Your task to perform on an android device: change the clock display to analog Image 0: 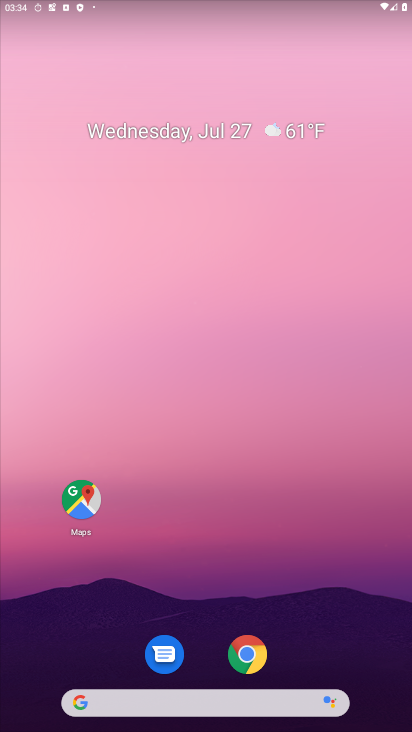
Step 0: drag from (280, 682) to (240, 128)
Your task to perform on an android device: change the clock display to analog Image 1: 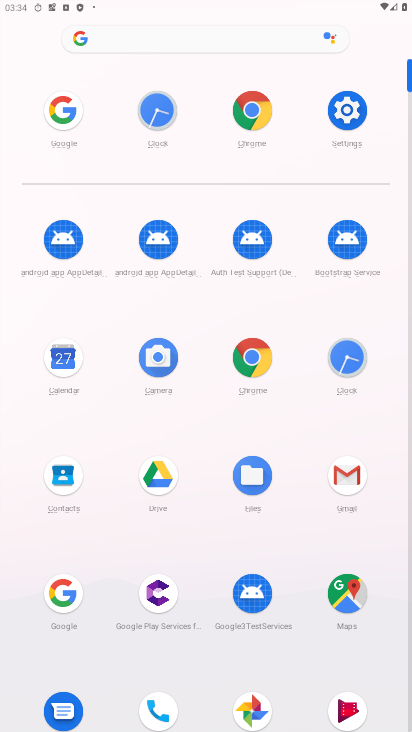
Step 1: click (355, 366)
Your task to perform on an android device: change the clock display to analog Image 2: 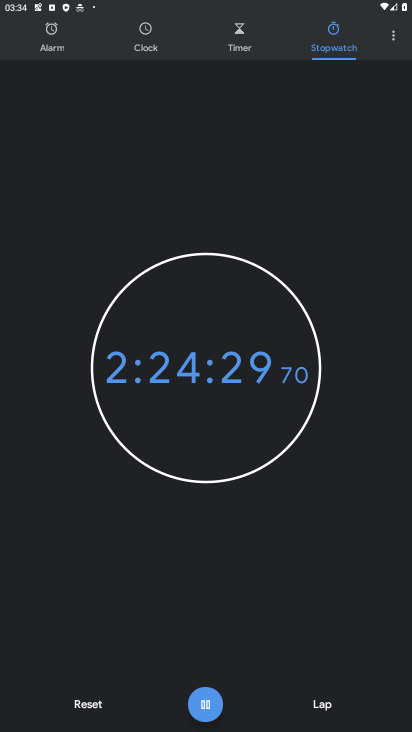
Step 2: click (392, 36)
Your task to perform on an android device: change the clock display to analog Image 3: 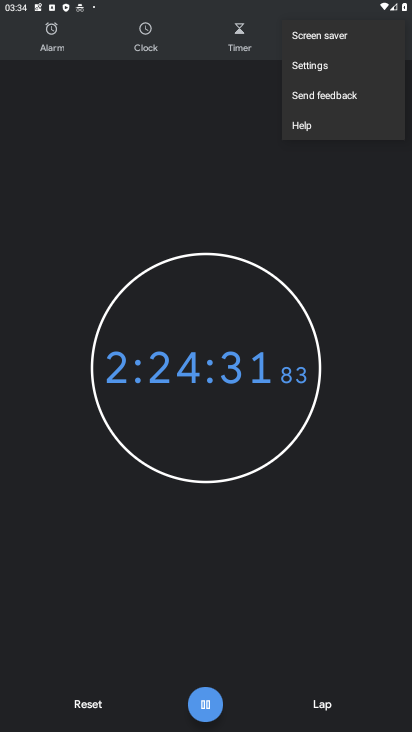
Step 3: click (322, 67)
Your task to perform on an android device: change the clock display to analog Image 4: 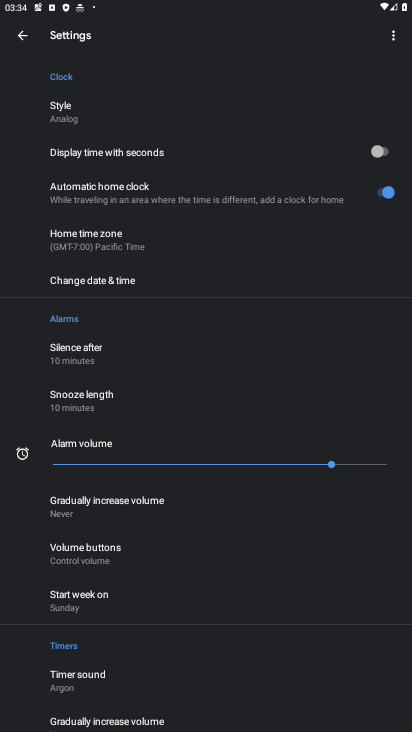
Step 4: click (61, 110)
Your task to perform on an android device: change the clock display to analog Image 5: 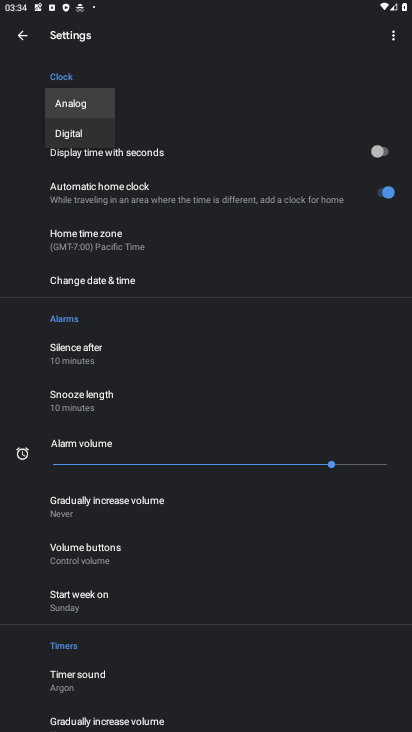
Step 5: click (95, 108)
Your task to perform on an android device: change the clock display to analog Image 6: 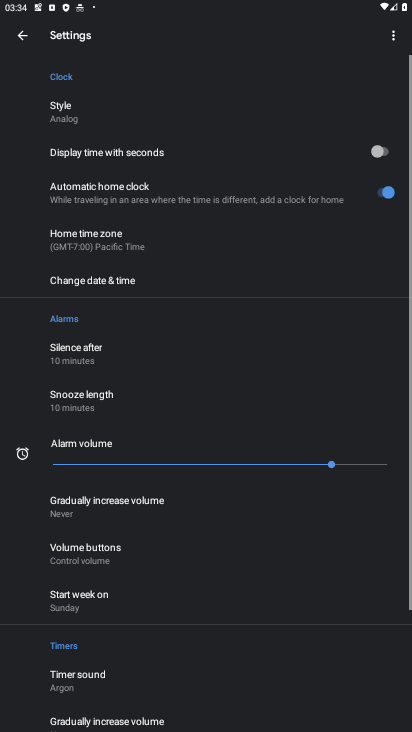
Step 6: task complete